Your task to perform on an android device: open app "Calculator" Image 0: 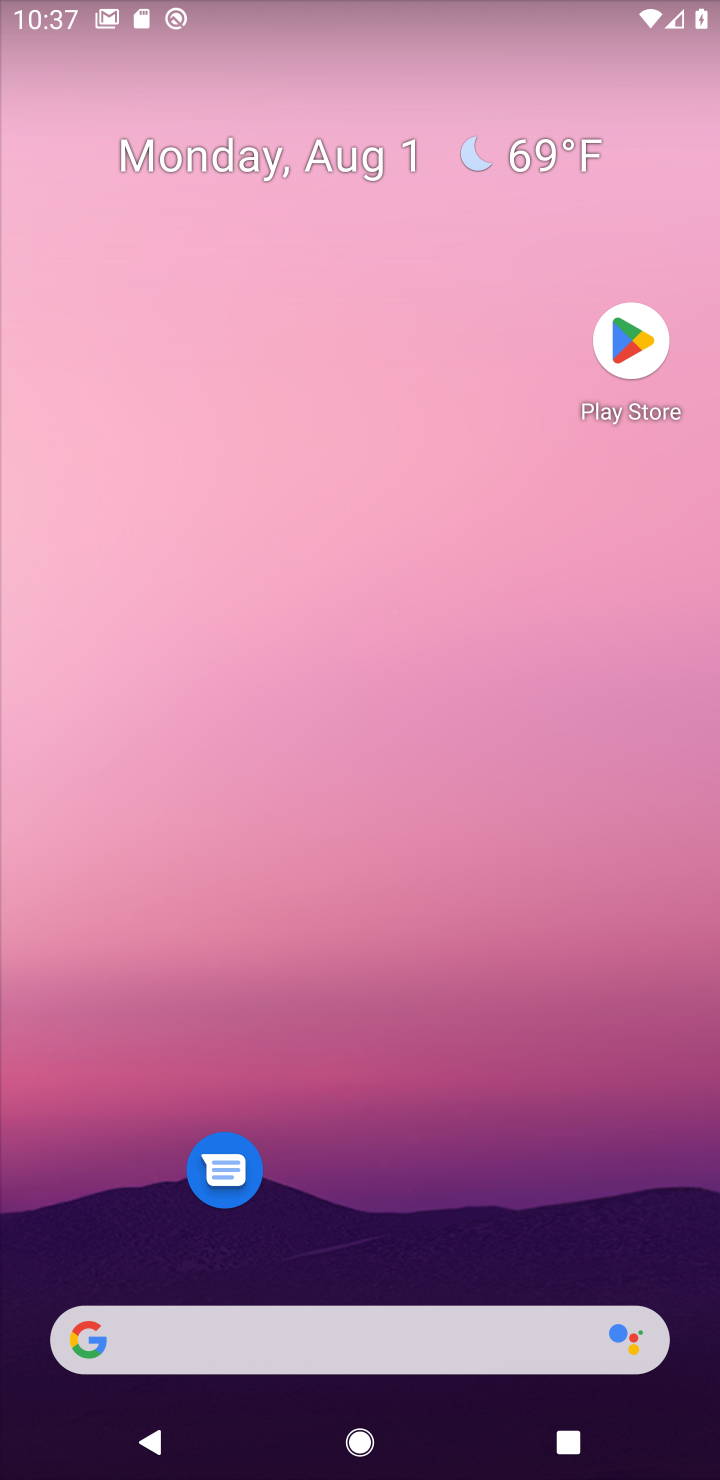
Step 0: drag from (421, 1161) to (305, 265)
Your task to perform on an android device: open app "Calculator" Image 1: 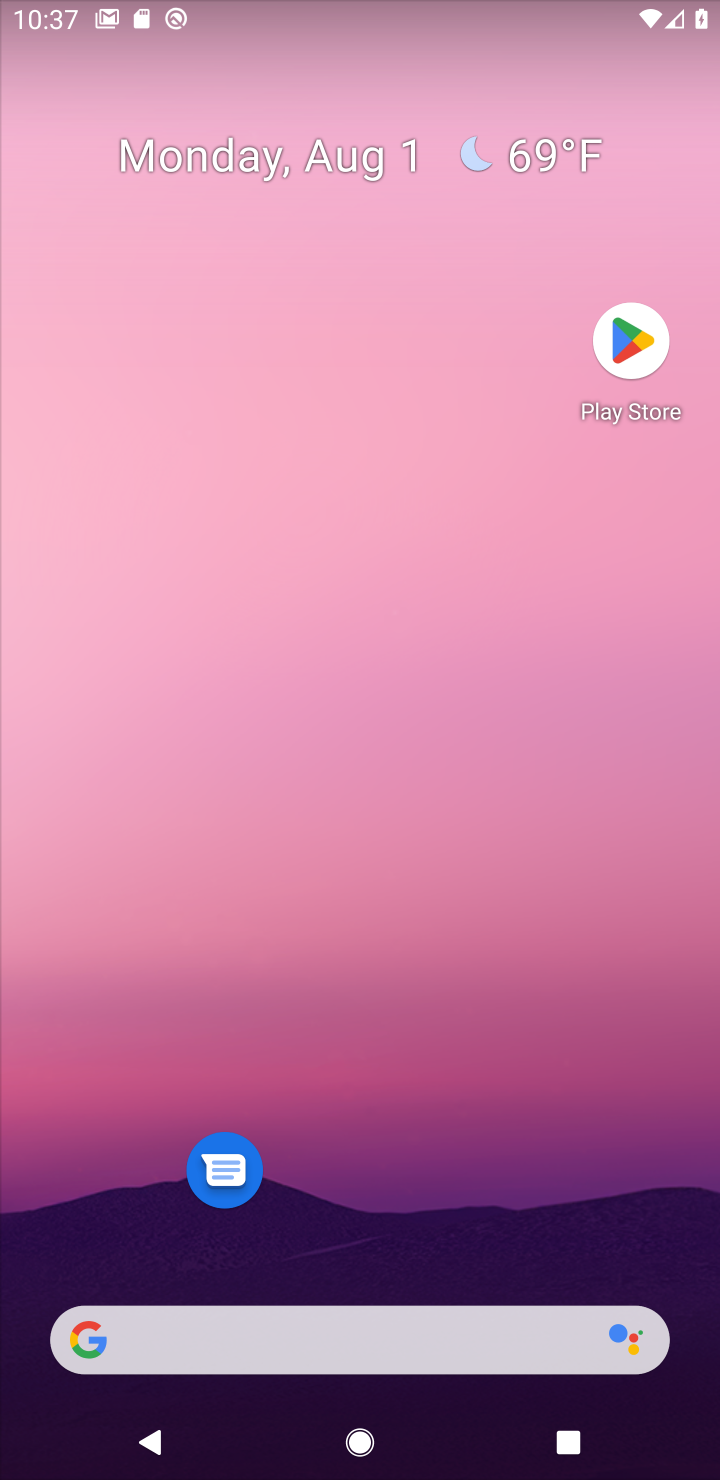
Step 1: click (219, 262)
Your task to perform on an android device: open app "Calculator" Image 2: 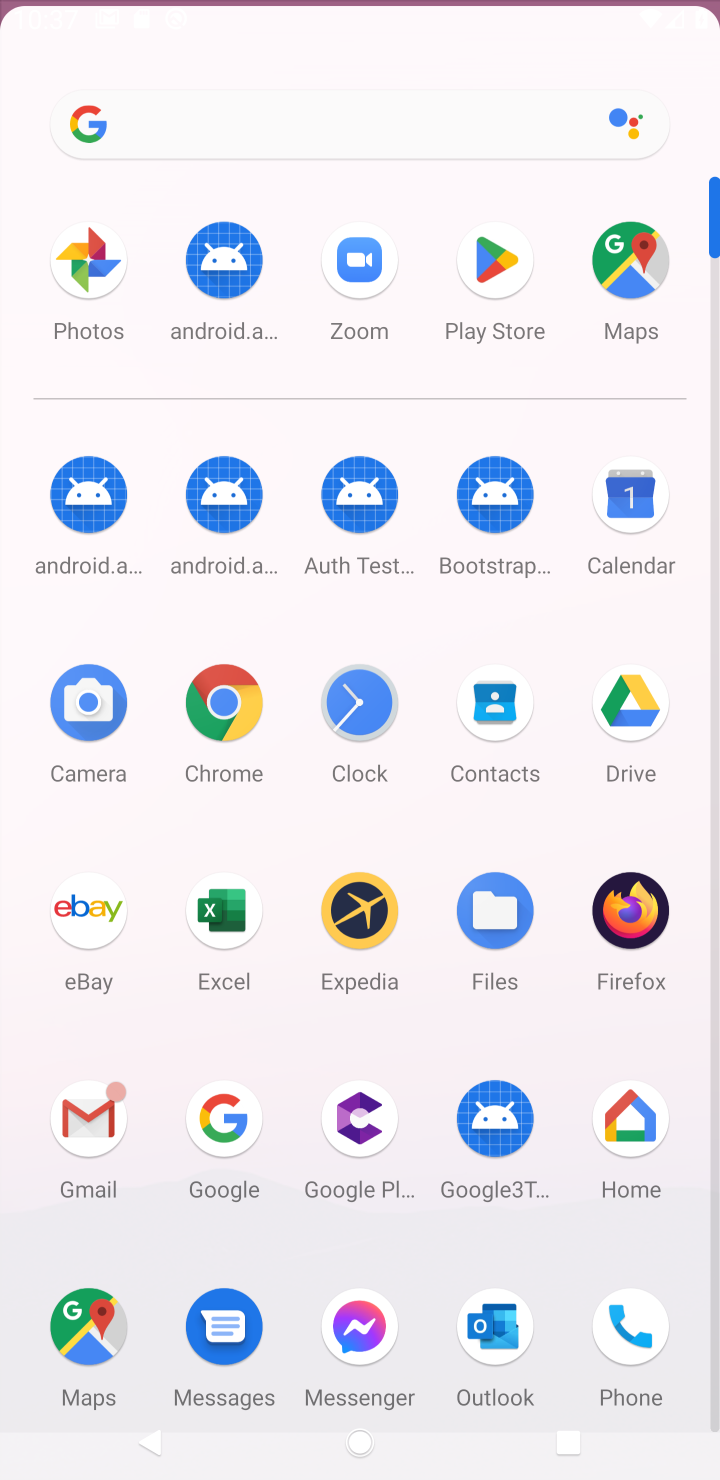
Step 2: drag from (375, 1073) to (369, 175)
Your task to perform on an android device: open app "Calculator" Image 3: 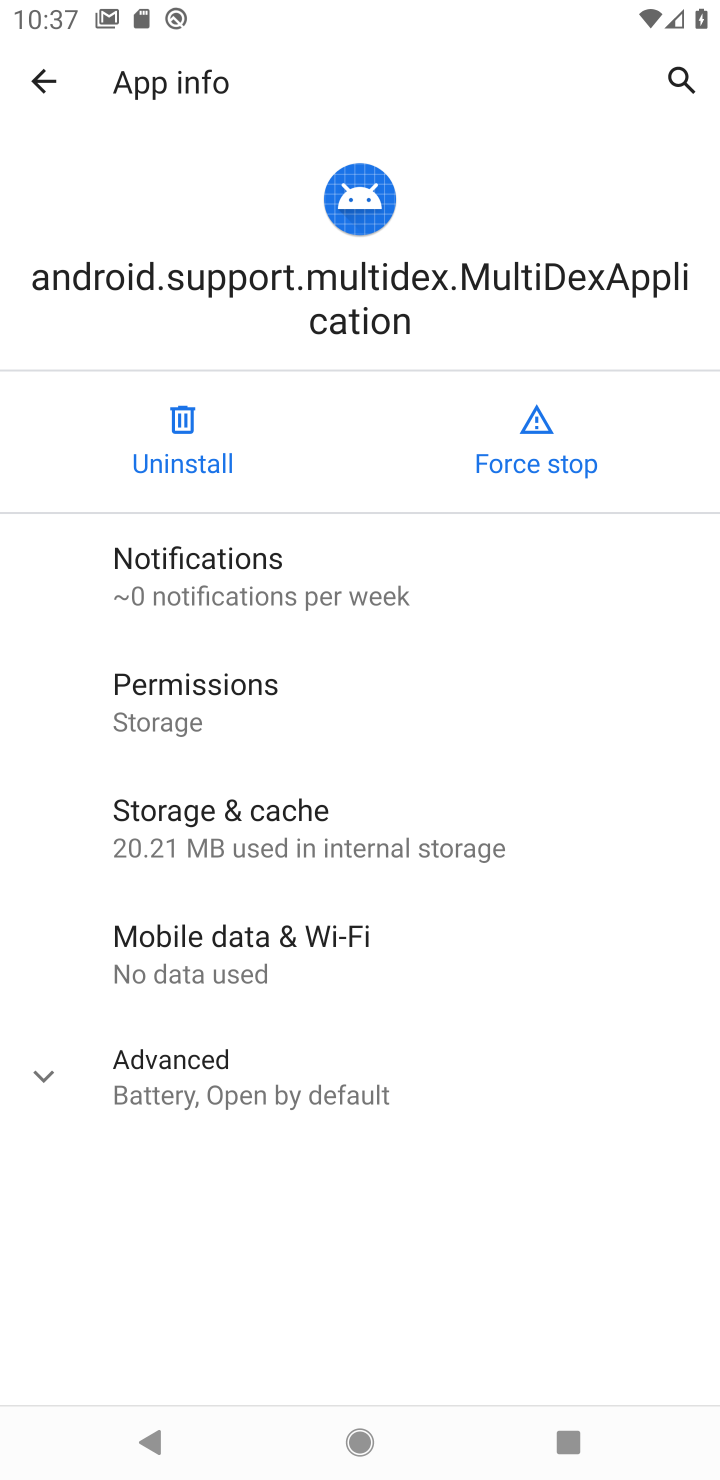
Step 3: click (42, 88)
Your task to perform on an android device: open app "Calculator" Image 4: 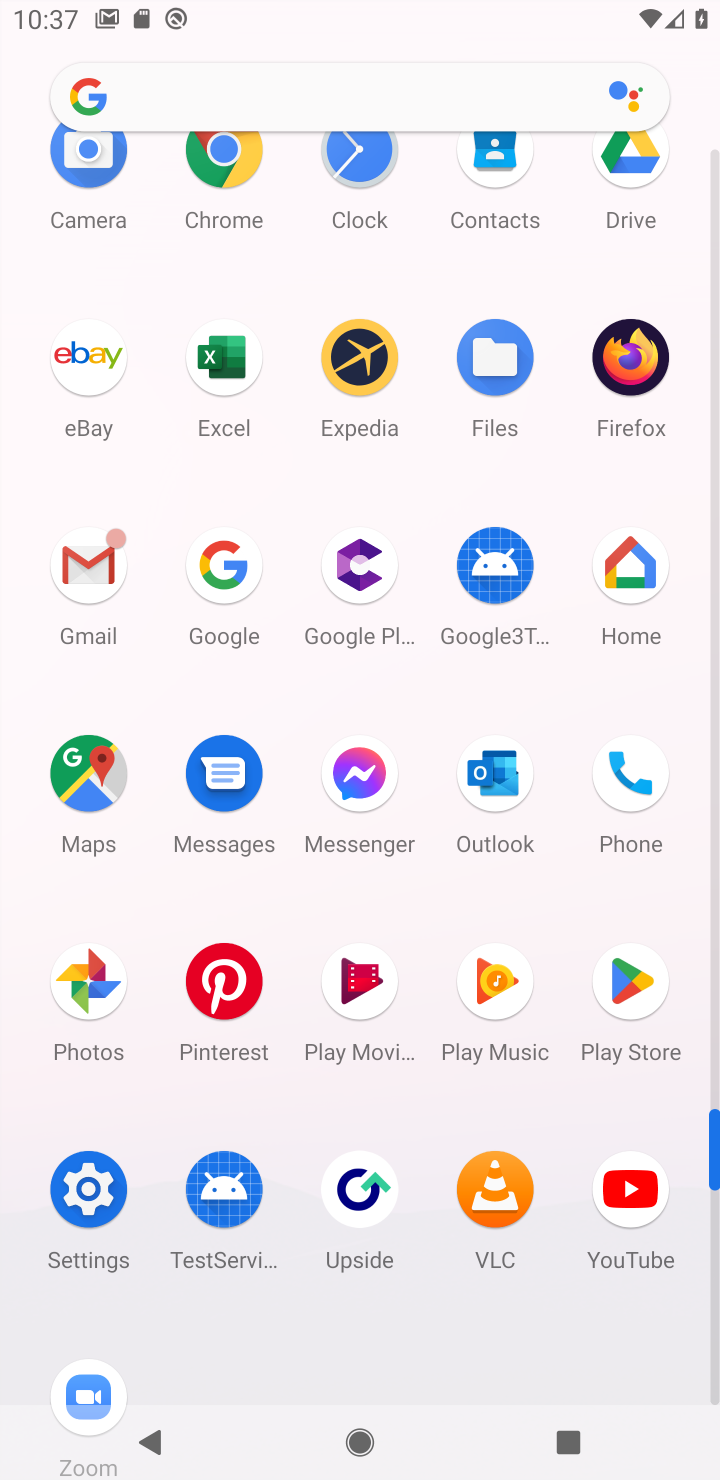
Step 4: click (616, 983)
Your task to perform on an android device: open app "Calculator" Image 5: 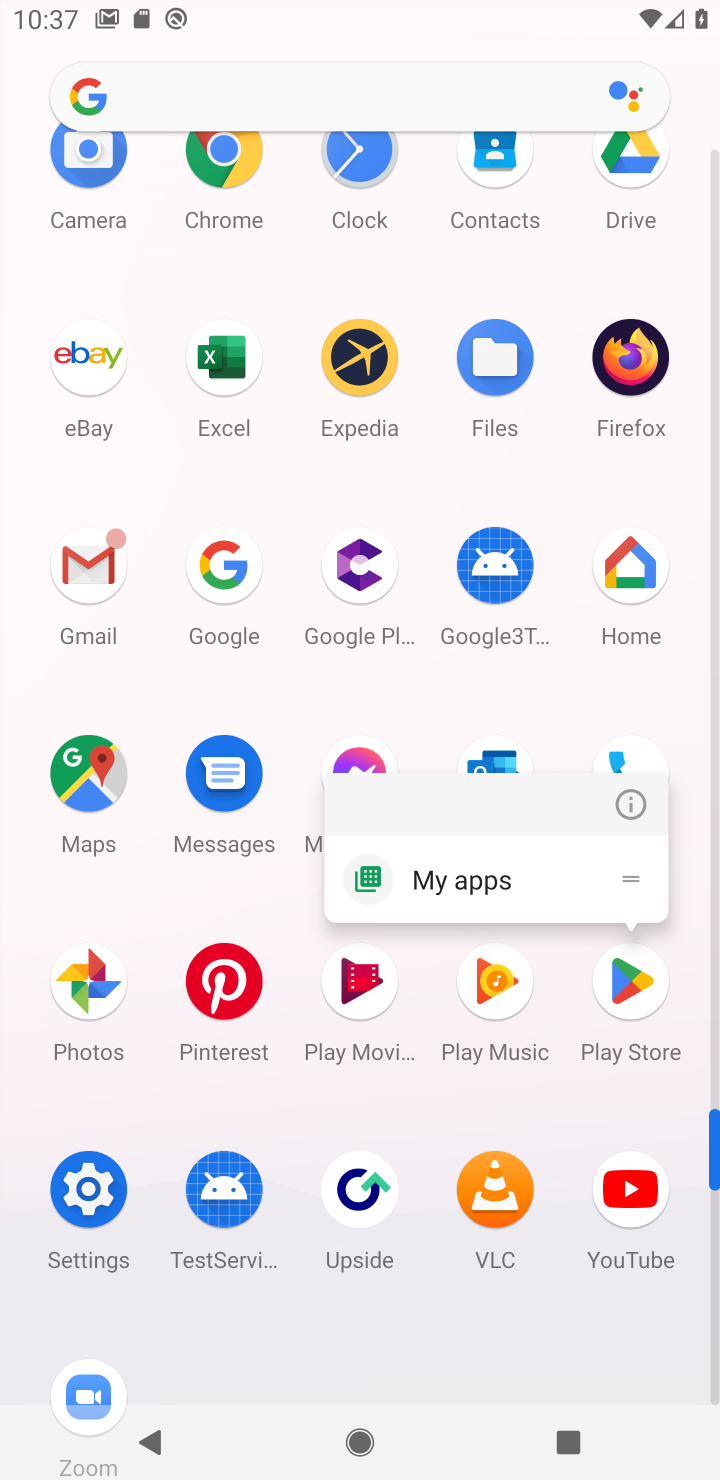
Step 5: click (624, 974)
Your task to perform on an android device: open app "Calculator" Image 6: 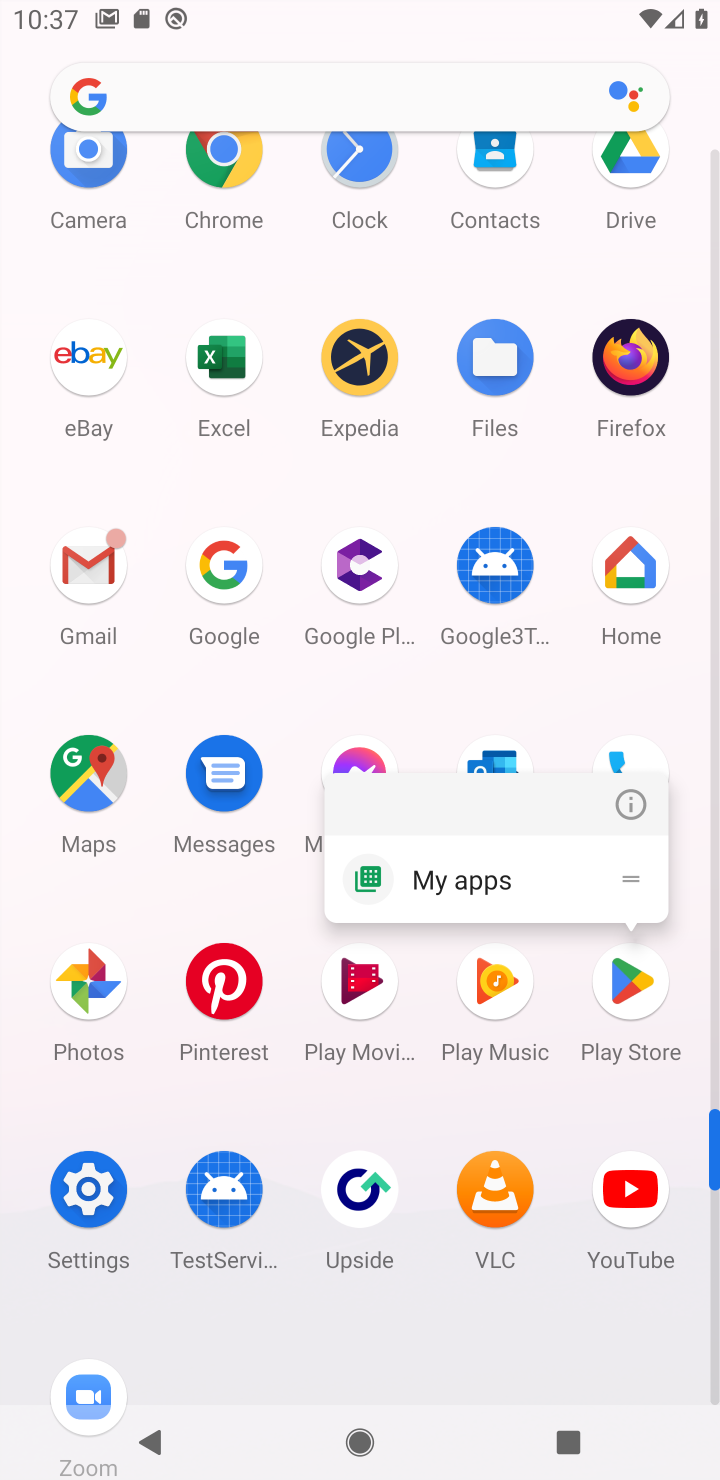
Step 6: click (631, 976)
Your task to perform on an android device: open app "Calculator" Image 7: 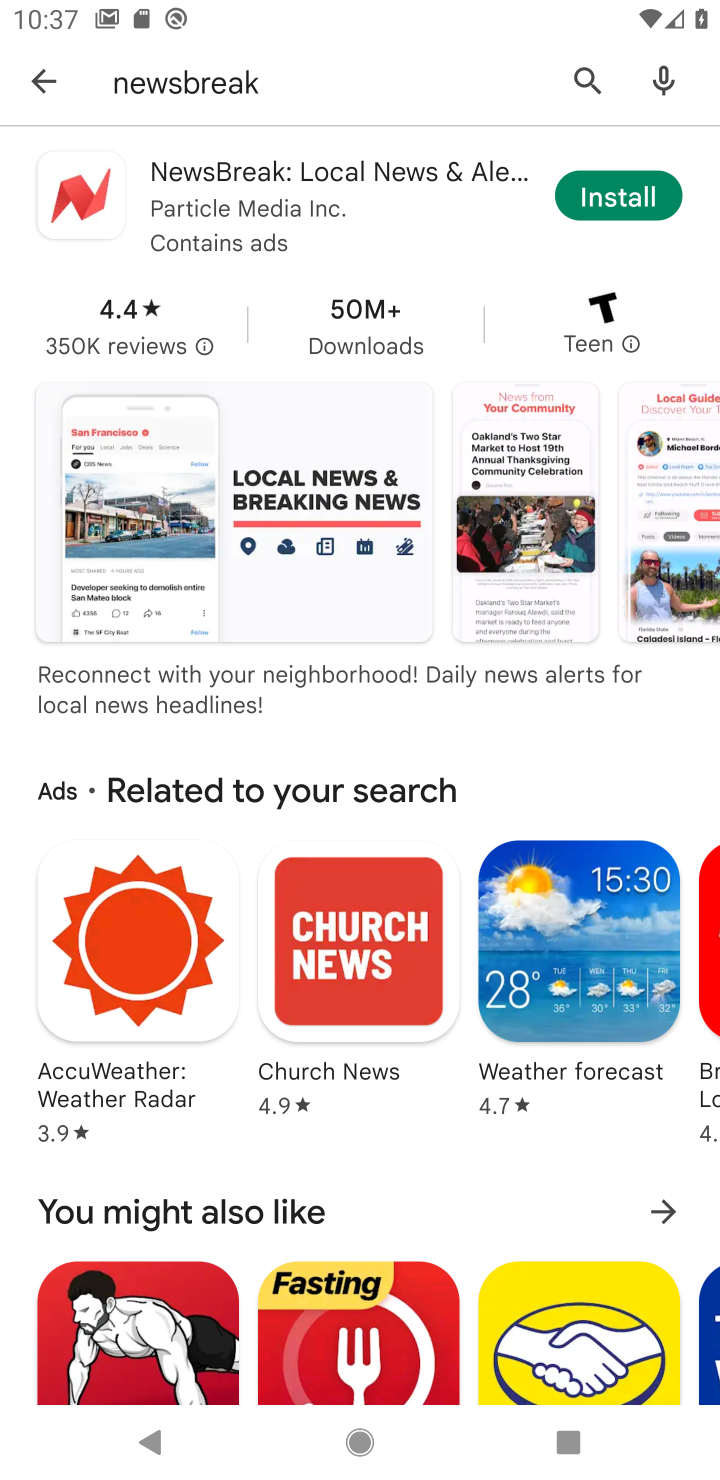
Step 7: click (47, 82)
Your task to perform on an android device: open app "Calculator" Image 8: 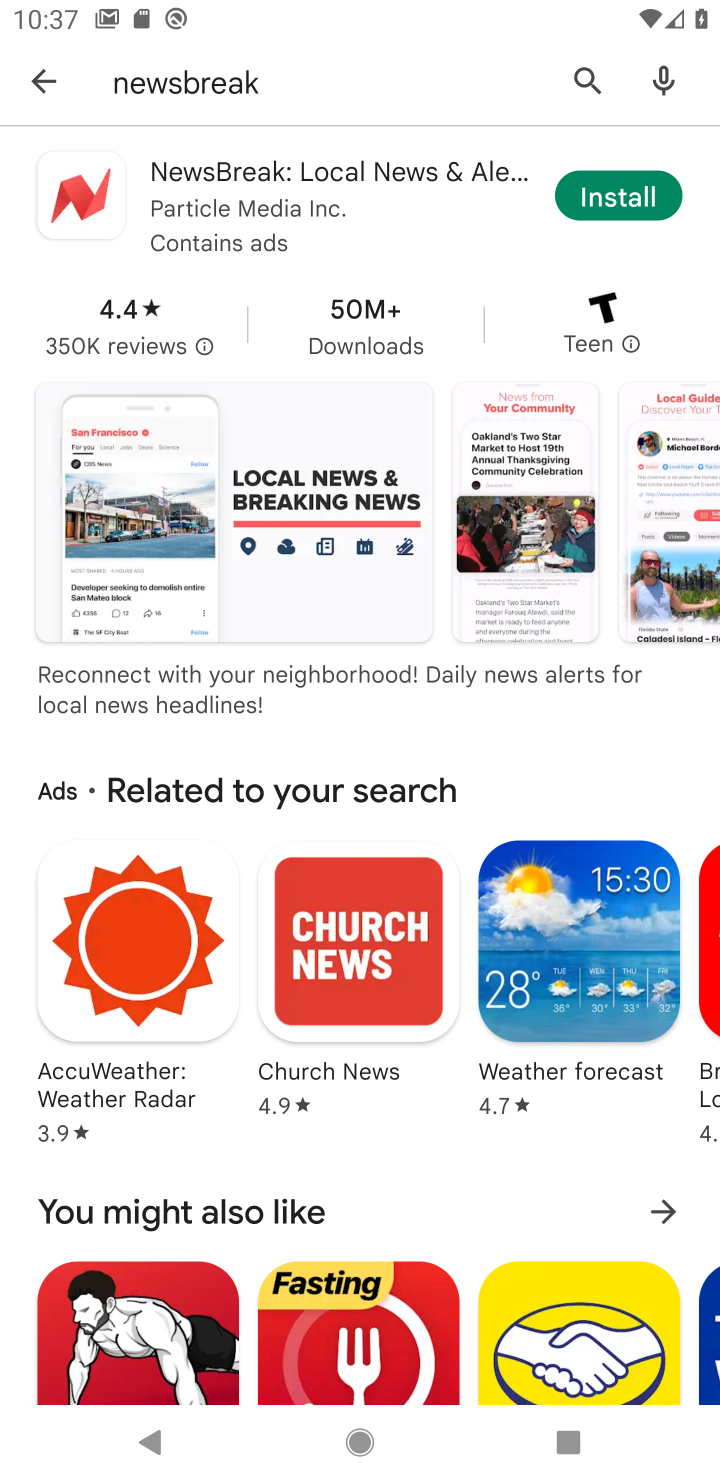
Step 8: click (47, 82)
Your task to perform on an android device: open app "Calculator" Image 9: 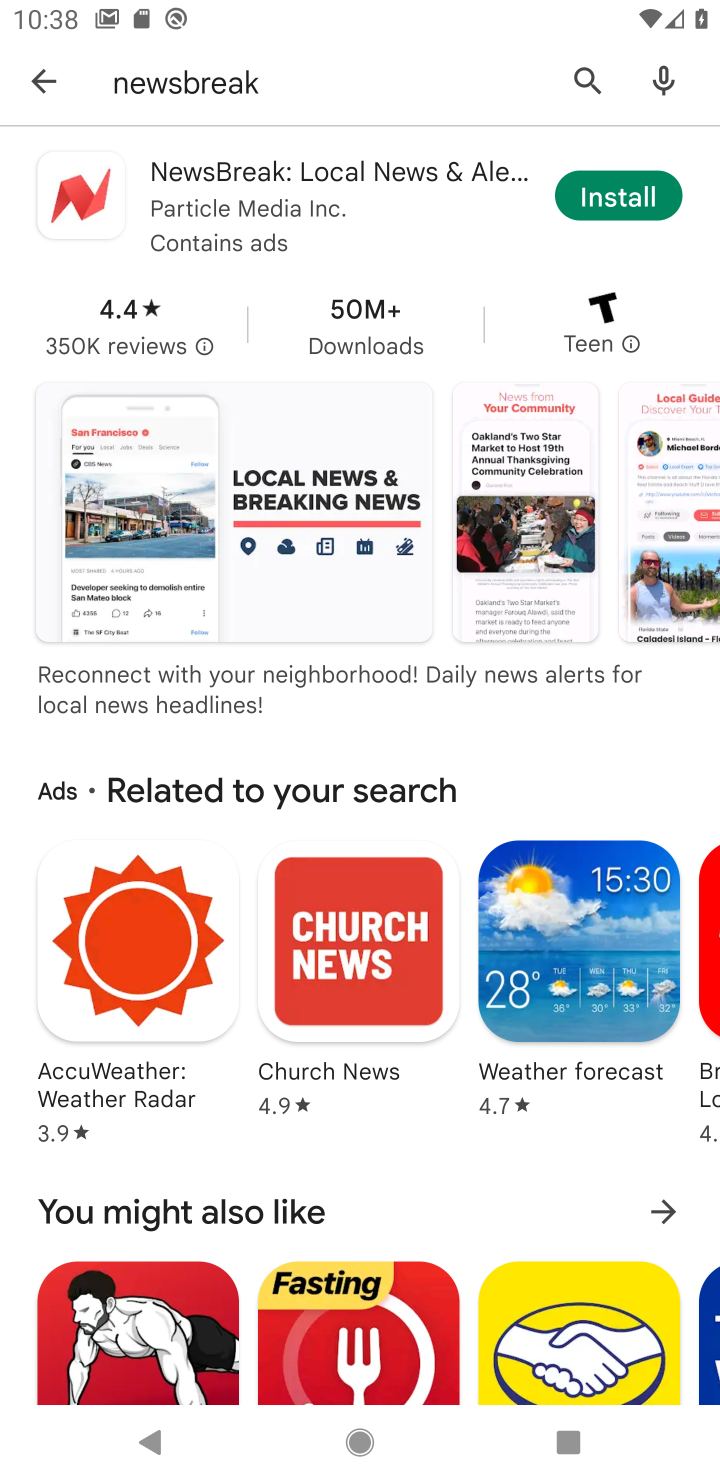
Step 9: click (41, 84)
Your task to perform on an android device: open app "Calculator" Image 10: 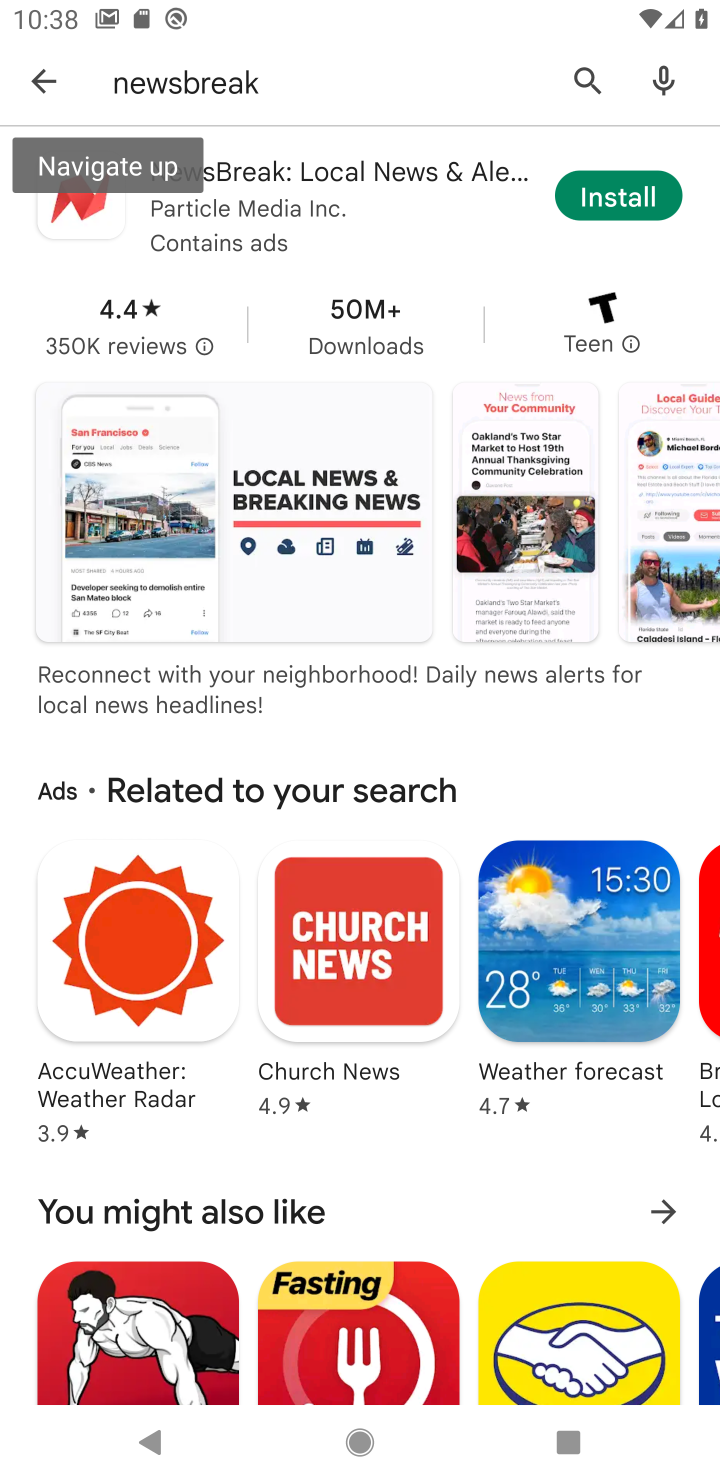
Step 10: click (256, 82)
Your task to perform on an android device: open app "Calculator" Image 11: 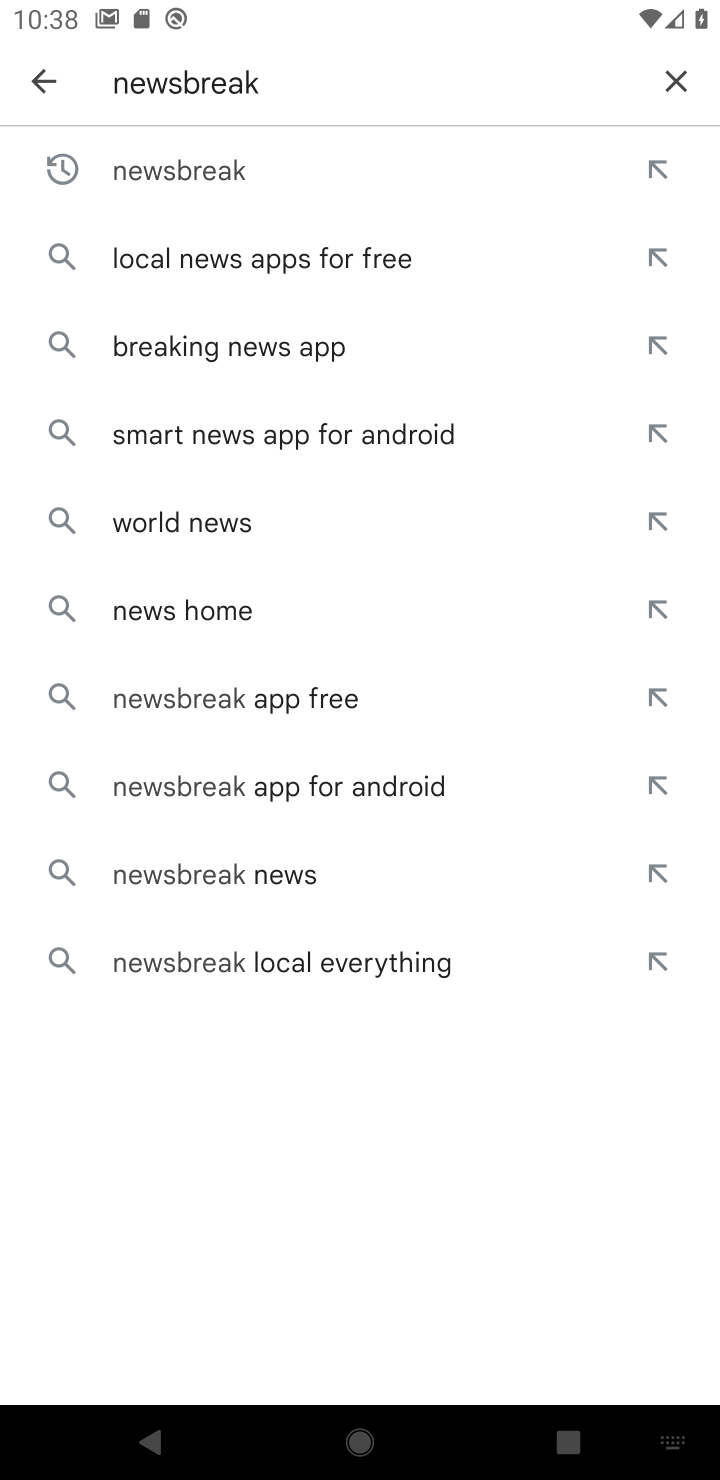
Step 11: click (681, 68)
Your task to perform on an android device: open app "Calculator" Image 12: 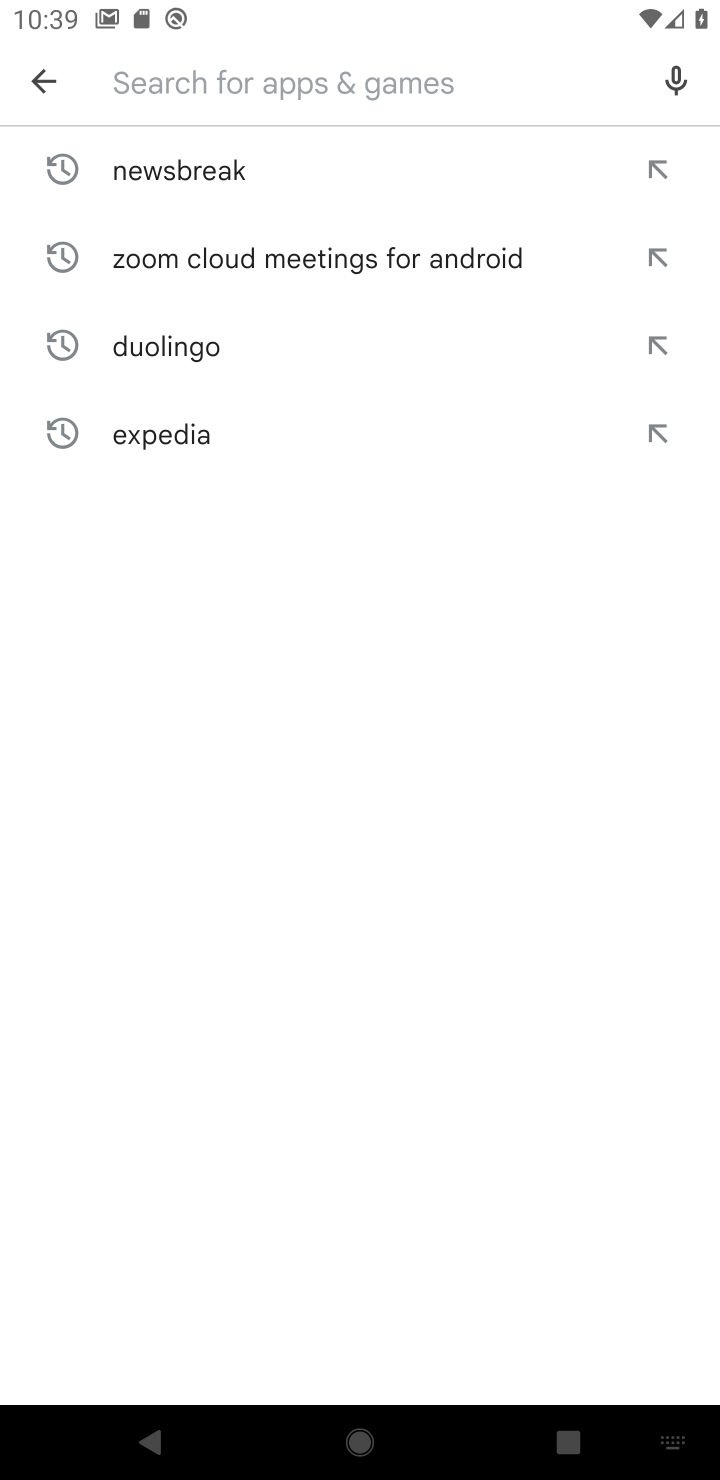
Step 12: type "calculator"
Your task to perform on an android device: open app "Calculator" Image 13: 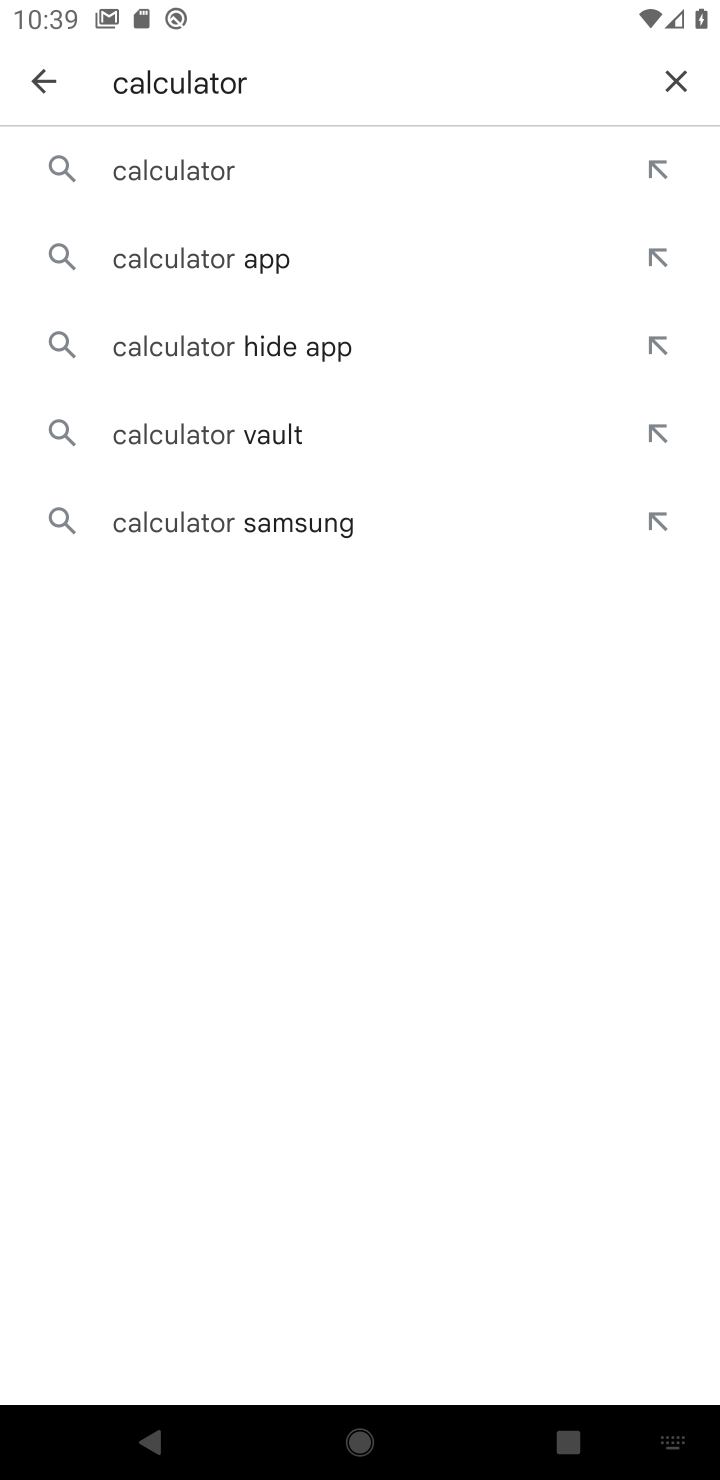
Step 13: click (146, 194)
Your task to perform on an android device: open app "Calculator" Image 14: 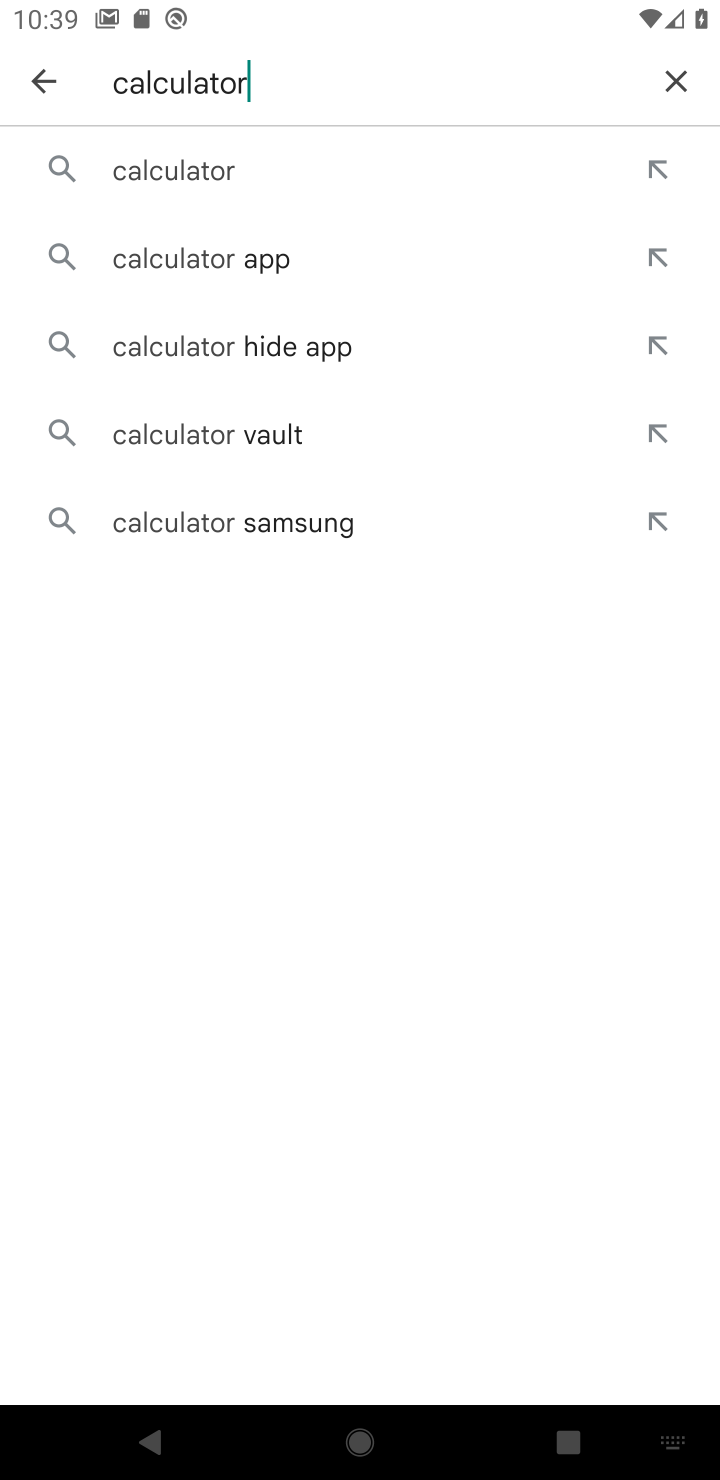
Step 14: click (160, 194)
Your task to perform on an android device: open app "Calculator" Image 15: 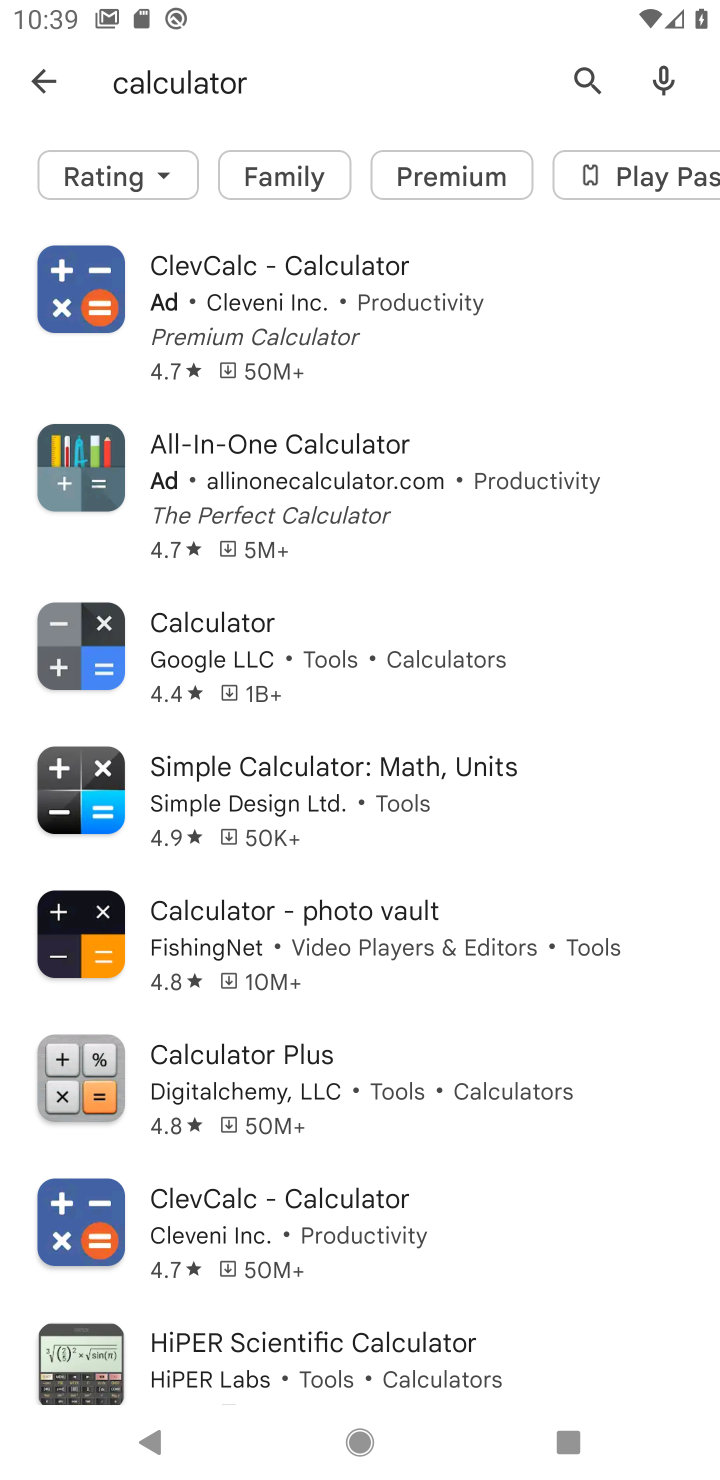
Step 15: click (177, 332)
Your task to perform on an android device: open app "Calculator" Image 16: 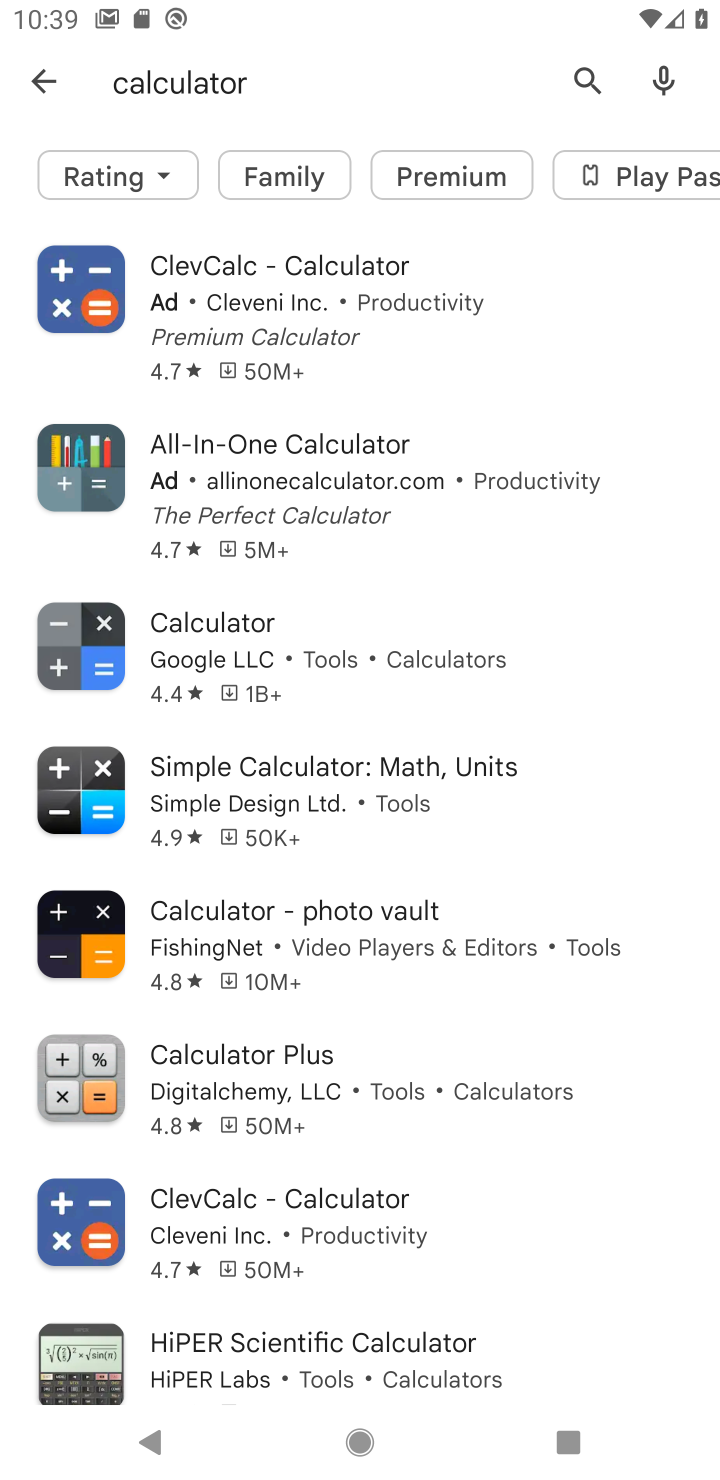
Step 16: drag from (280, 755) to (314, 633)
Your task to perform on an android device: open app "Calculator" Image 17: 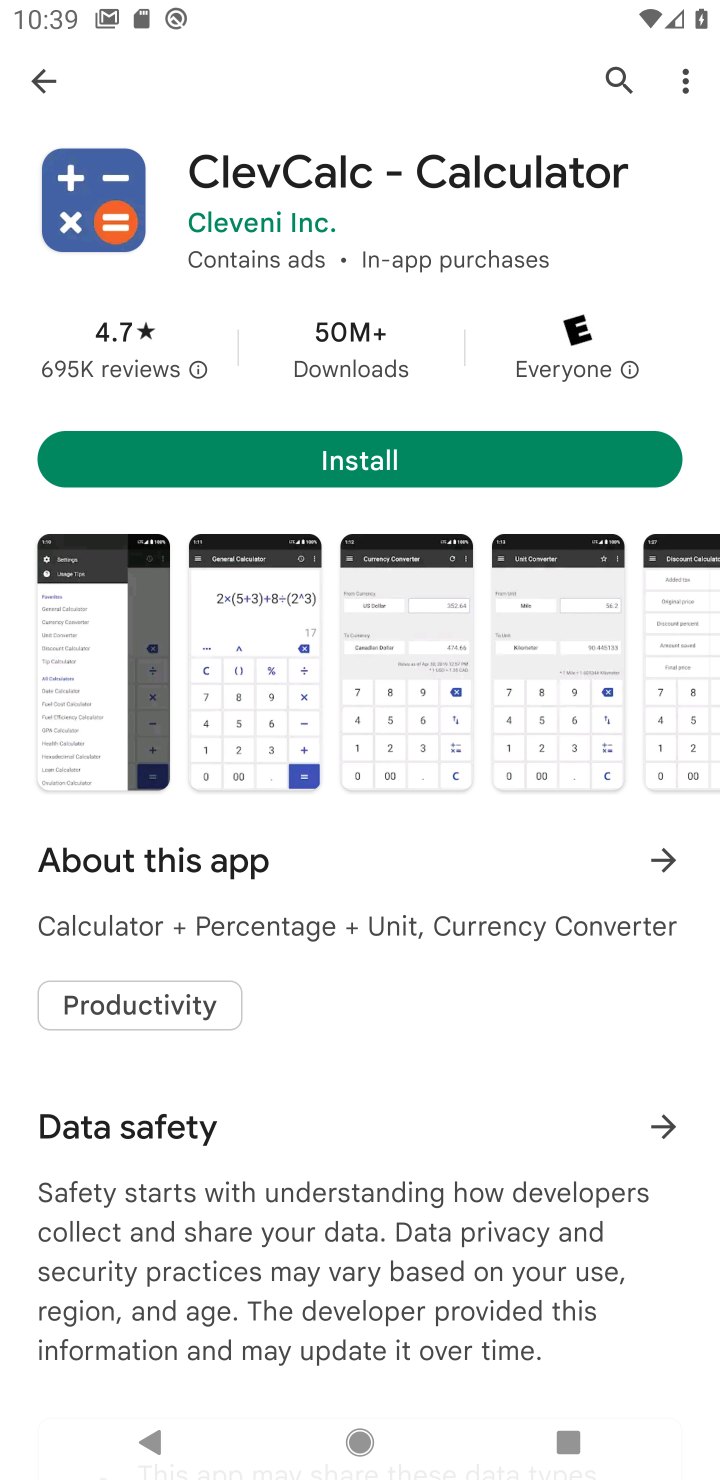
Step 17: click (29, 68)
Your task to perform on an android device: open app "Calculator" Image 18: 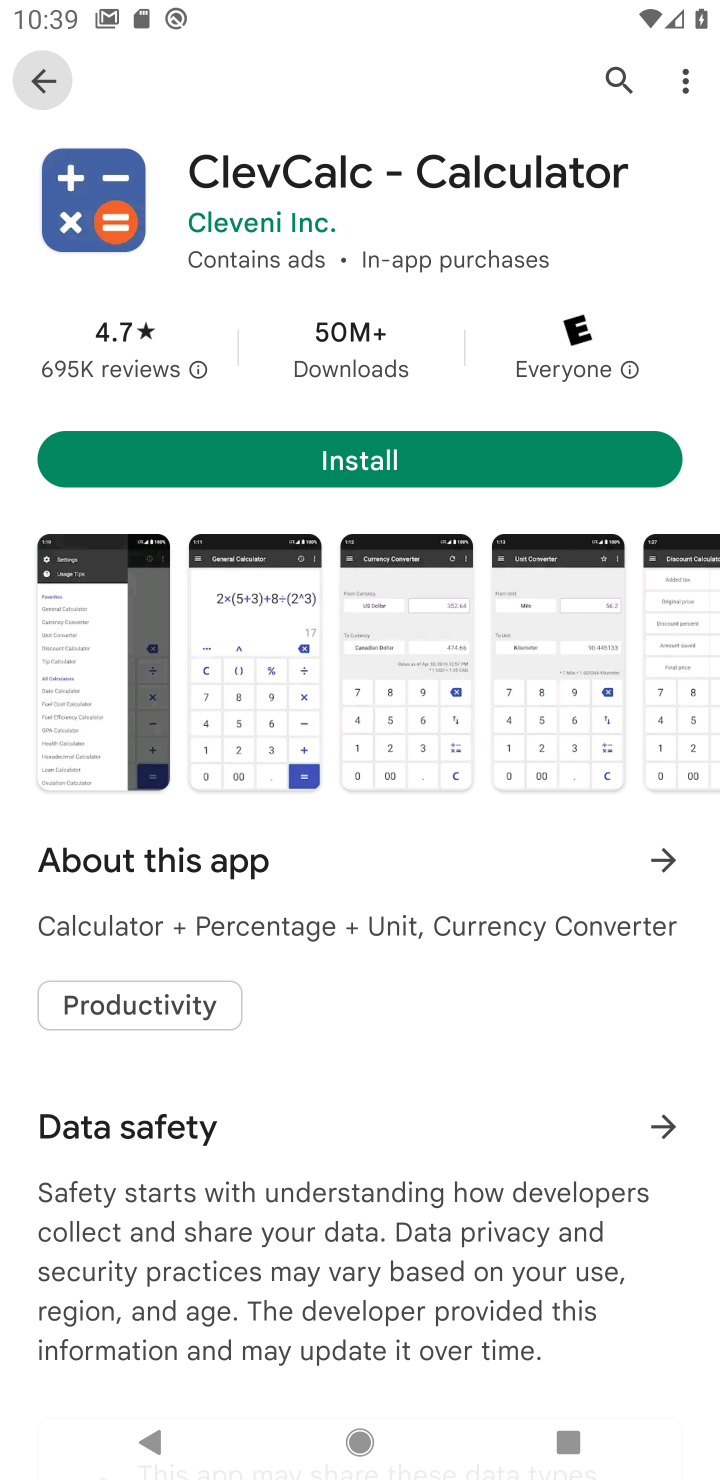
Step 18: click (24, 69)
Your task to perform on an android device: open app "Calculator" Image 19: 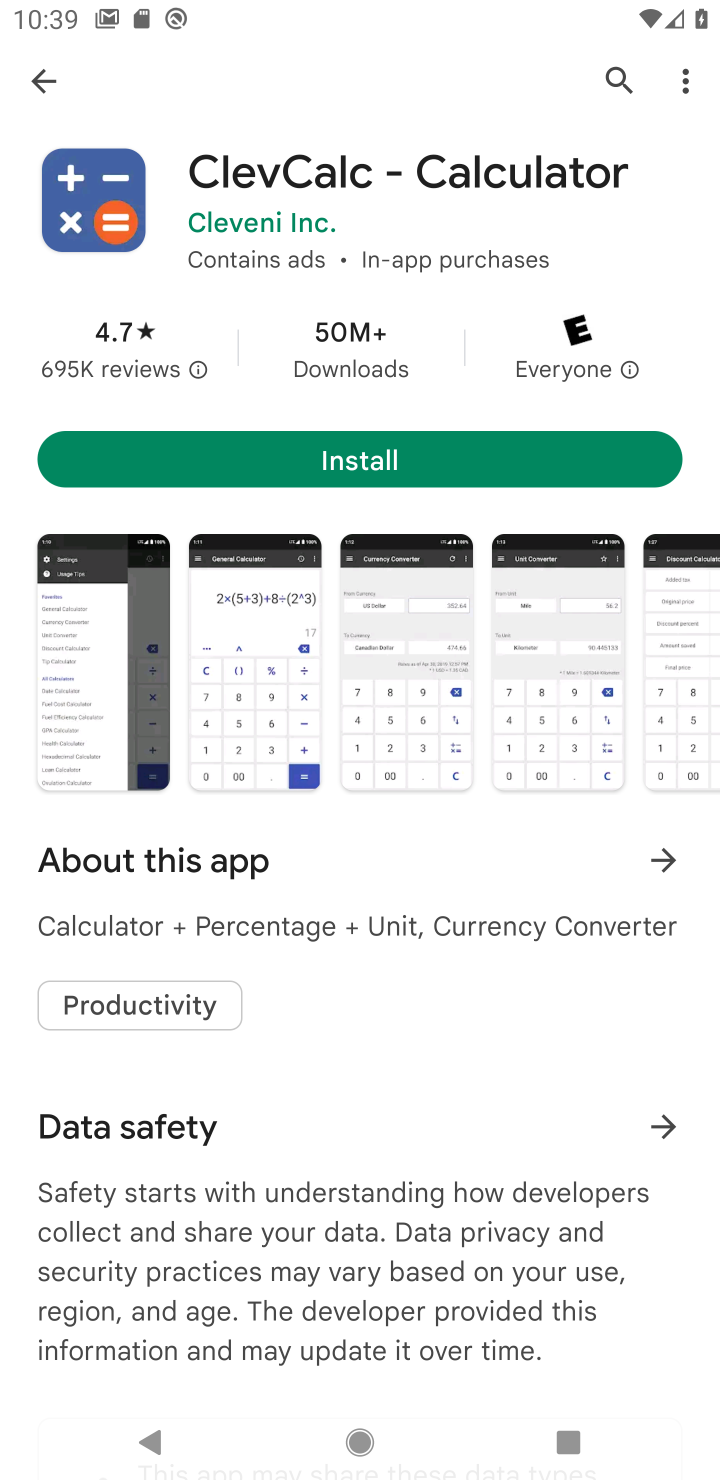
Step 19: click (48, 80)
Your task to perform on an android device: open app "Calculator" Image 20: 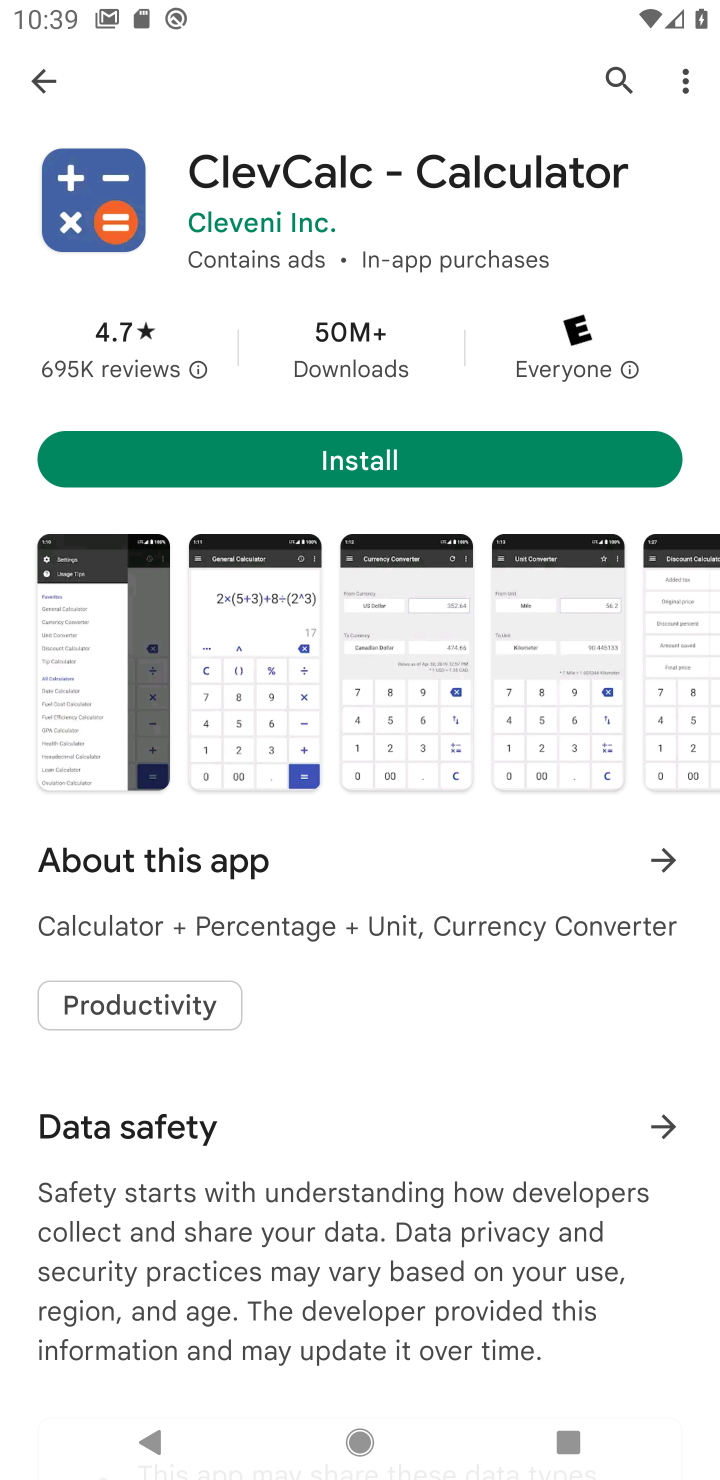
Step 20: click (38, 73)
Your task to perform on an android device: open app "Calculator" Image 21: 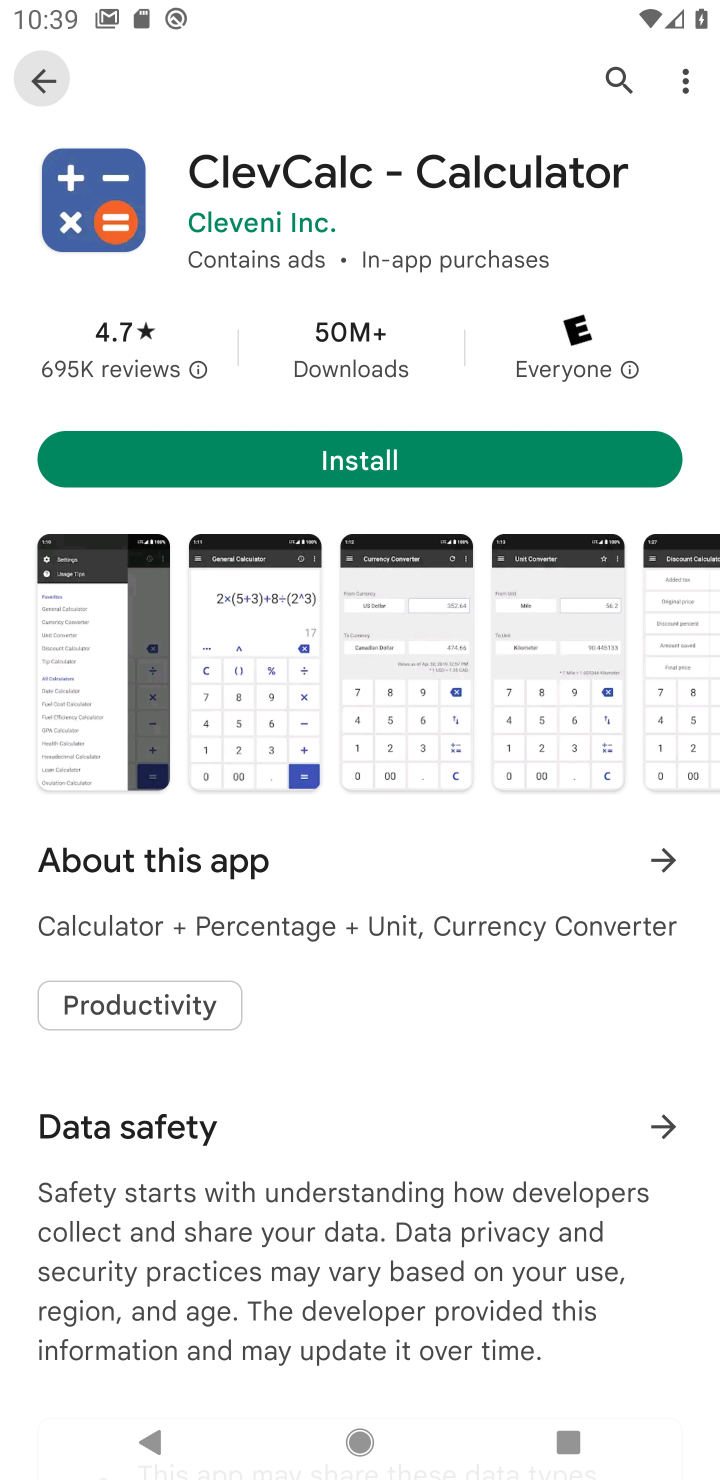
Step 21: click (38, 73)
Your task to perform on an android device: open app "Calculator" Image 22: 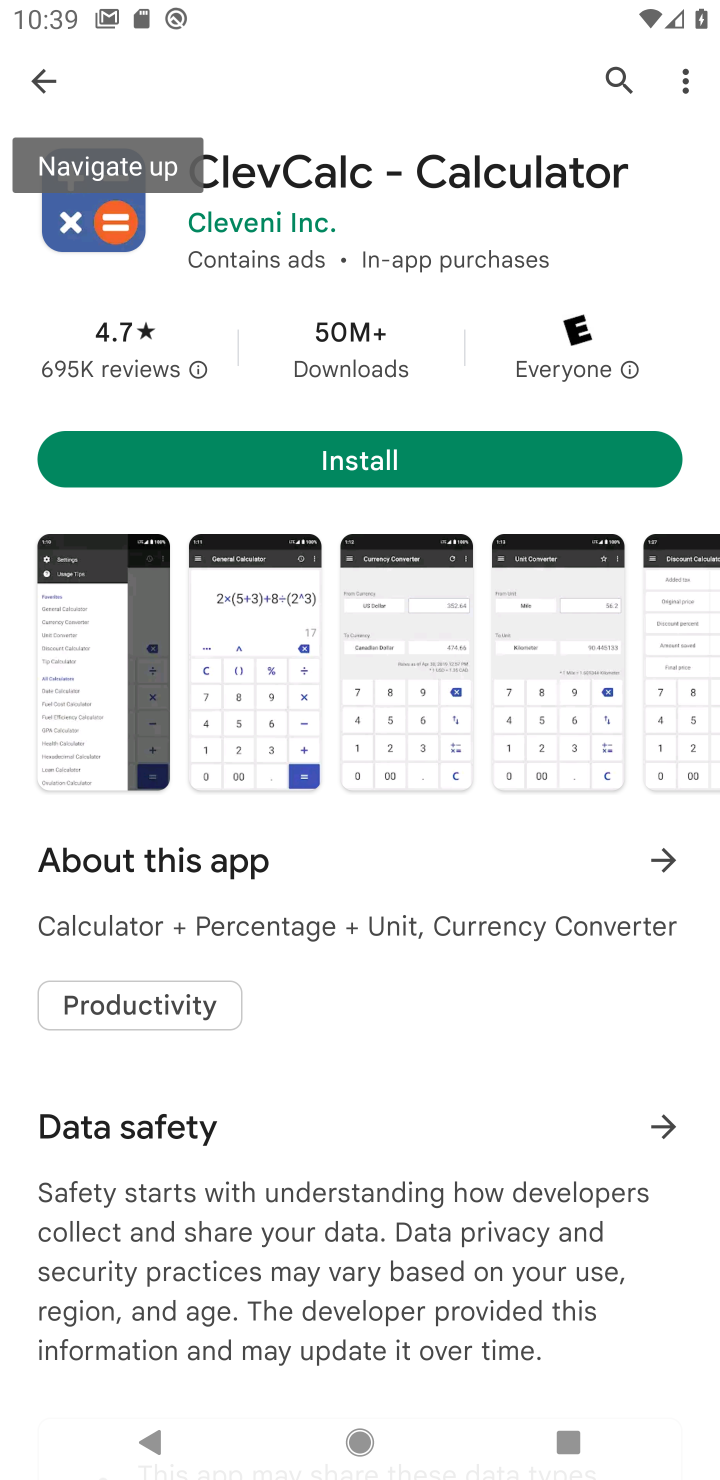
Step 22: click (44, 86)
Your task to perform on an android device: open app "Calculator" Image 23: 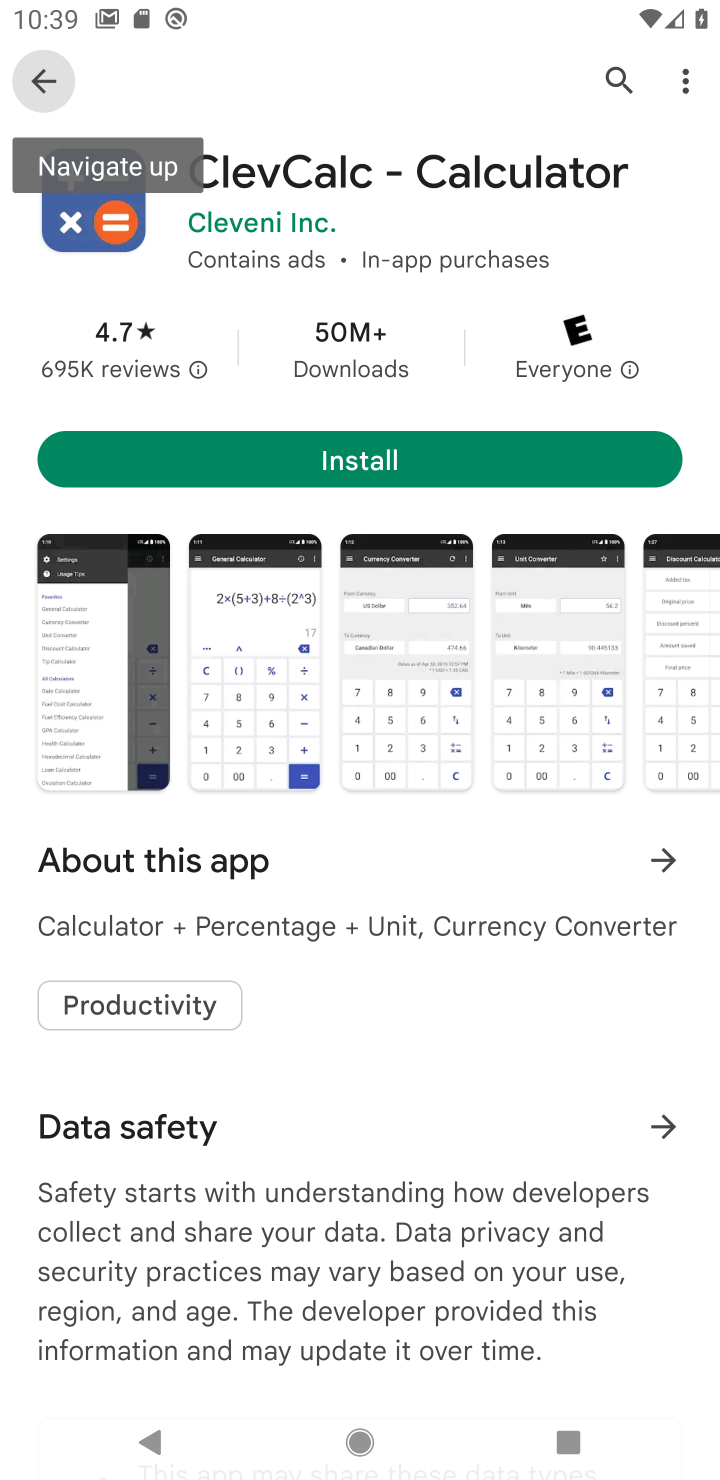
Step 23: click (53, 73)
Your task to perform on an android device: open app "Calculator" Image 24: 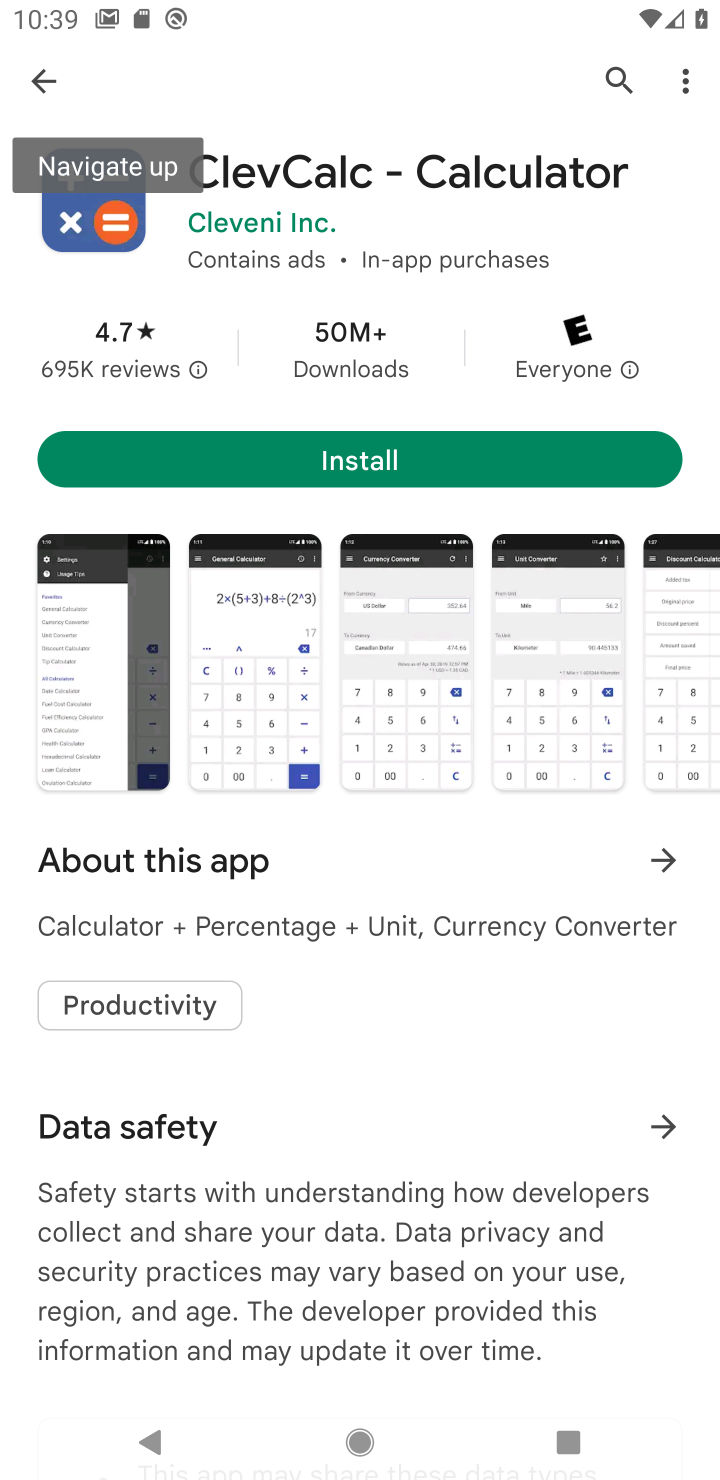
Step 24: click (46, 67)
Your task to perform on an android device: open app "Calculator" Image 25: 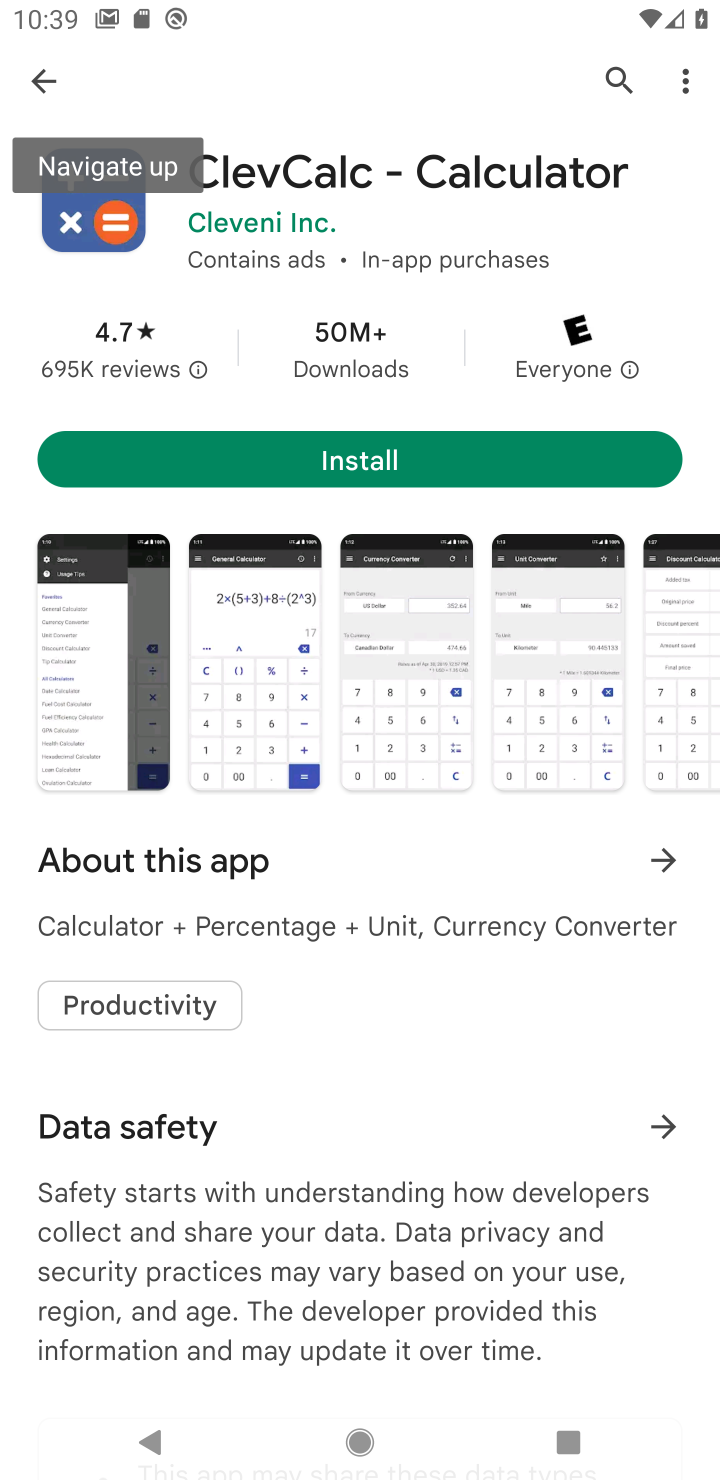
Step 25: task complete